Your task to perform on an android device: toggle notifications settings in the gmail app Image 0: 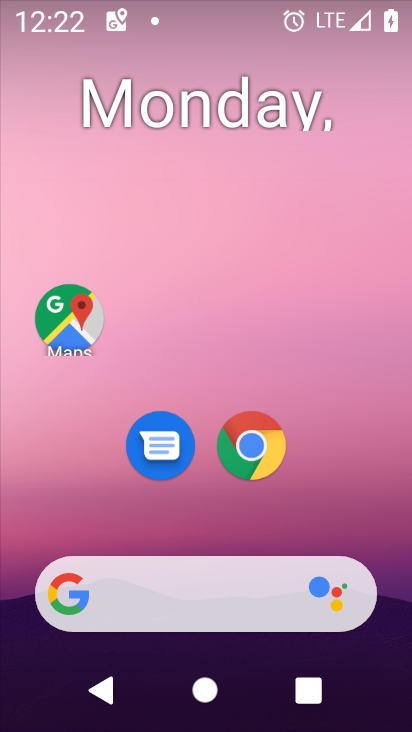
Step 0: drag from (199, 536) to (190, 156)
Your task to perform on an android device: toggle notifications settings in the gmail app Image 1: 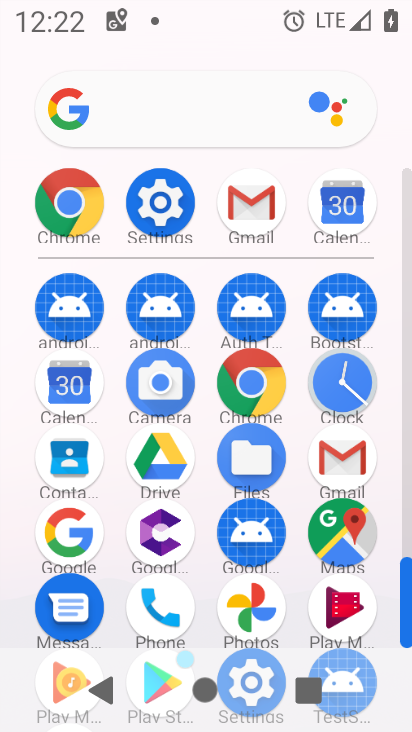
Step 1: click (344, 459)
Your task to perform on an android device: toggle notifications settings in the gmail app Image 2: 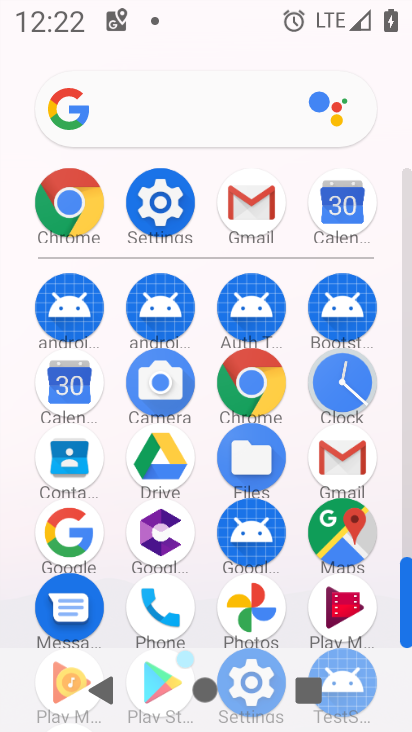
Step 2: click (344, 459)
Your task to perform on an android device: toggle notifications settings in the gmail app Image 3: 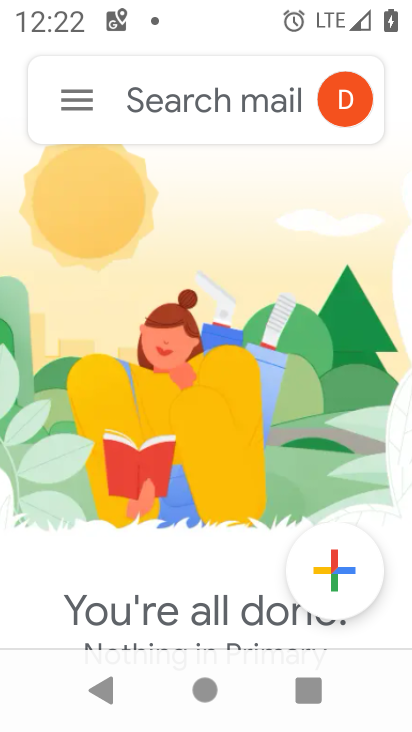
Step 3: click (78, 87)
Your task to perform on an android device: toggle notifications settings in the gmail app Image 4: 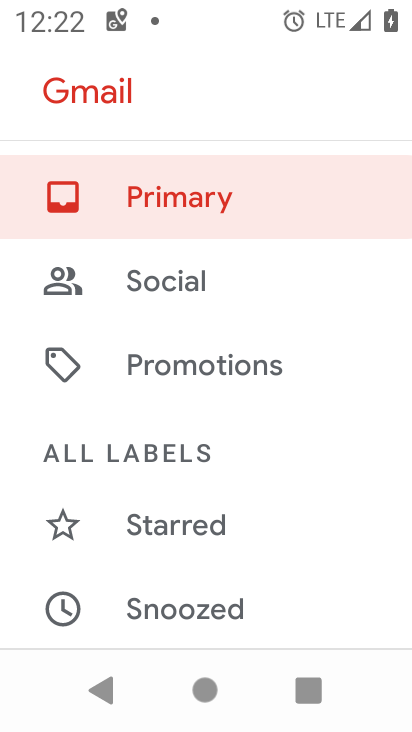
Step 4: drag from (216, 604) to (239, 95)
Your task to perform on an android device: toggle notifications settings in the gmail app Image 5: 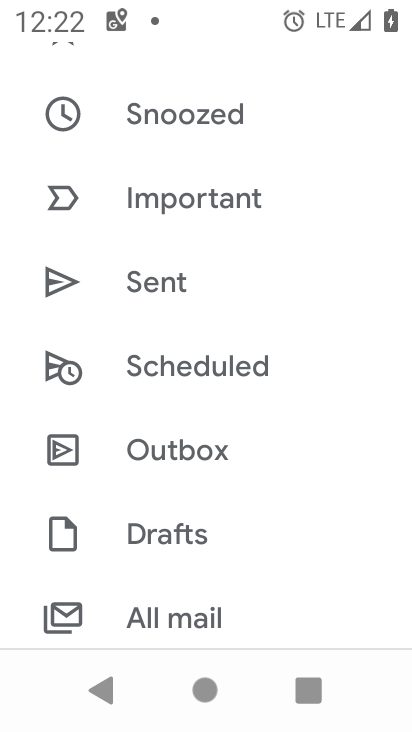
Step 5: drag from (176, 543) to (203, 163)
Your task to perform on an android device: toggle notifications settings in the gmail app Image 6: 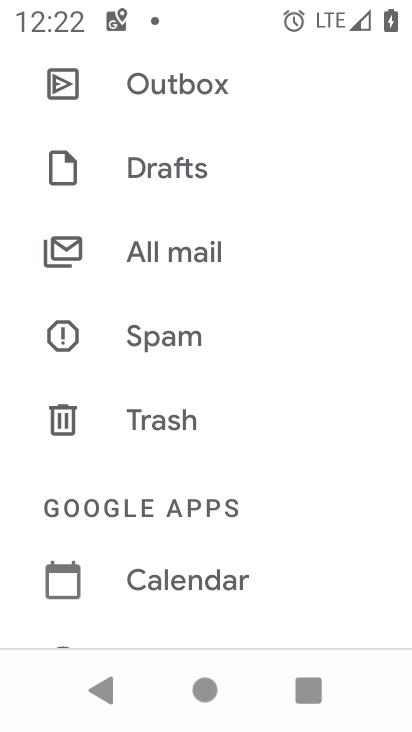
Step 6: drag from (215, 419) to (259, 5)
Your task to perform on an android device: toggle notifications settings in the gmail app Image 7: 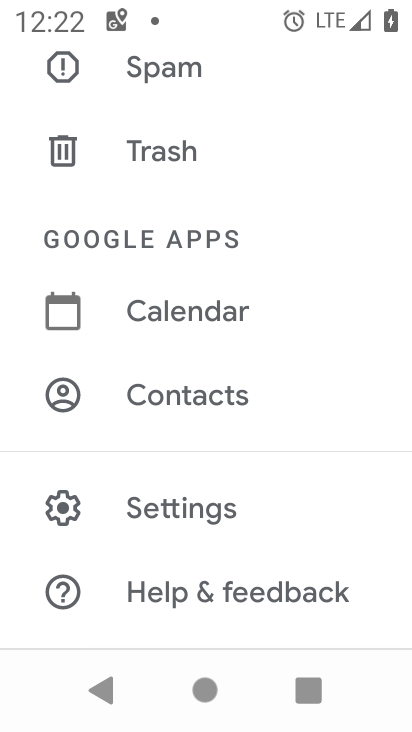
Step 7: click (204, 501)
Your task to perform on an android device: toggle notifications settings in the gmail app Image 8: 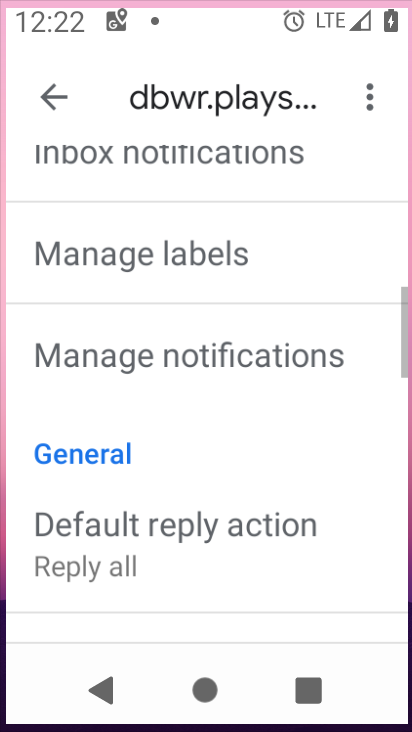
Step 8: drag from (204, 487) to (217, 132)
Your task to perform on an android device: toggle notifications settings in the gmail app Image 9: 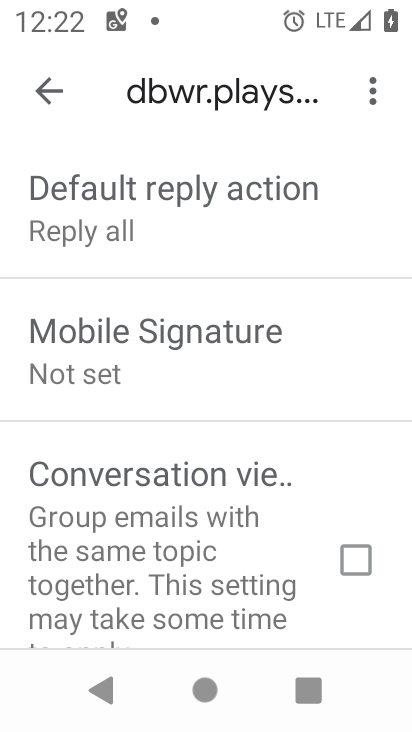
Step 9: drag from (194, 533) to (202, 212)
Your task to perform on an android device: toggle notifications settings in the gmail app Image 10: 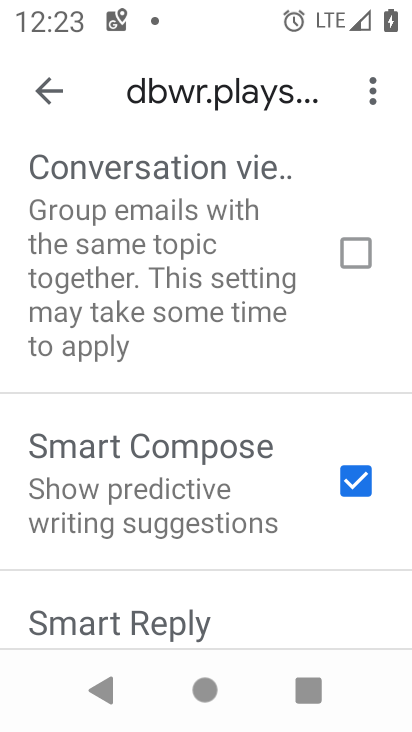
Step 10: drag from (164, 609) to (224, 72)
Your task to perform on an android device: toggle notifications settings in the gmail app Image 11: 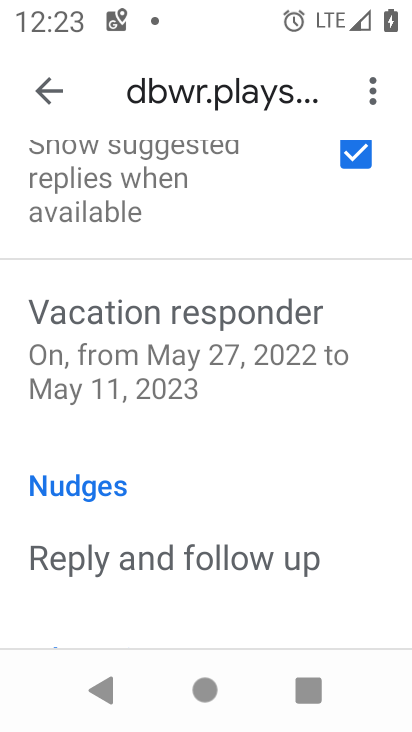
Step 11: drag from (185, 485) to (202, 154)
Your task to perform on an android device: toggle notifications settings in the gmail app Image 12: 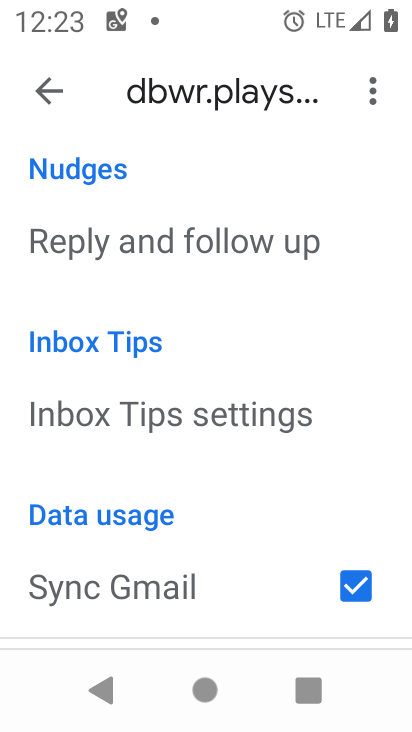
Step 12: drag from (192, 262) to (224, 639)
Your task to perform on an android device: toggle notifications settings in the gmail app Image 13: 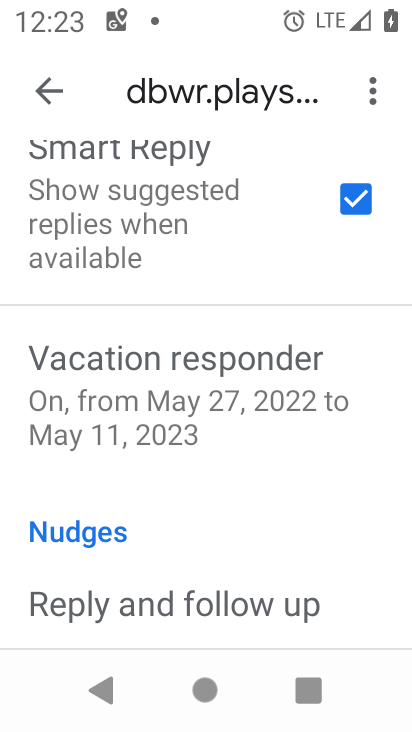
Step 13: drag from (210, 209) to (409, 421)
Your task to perform on an android device: toggle notifications settings in the gmail app Image 14: 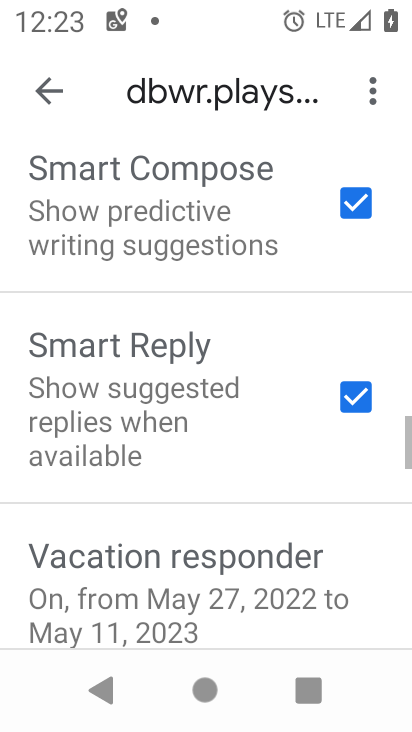
Step 14: drag from (232, 295) to (328, 722)
Your task to perform on an android device: toggle notifications settings in the gmail app Image 15: 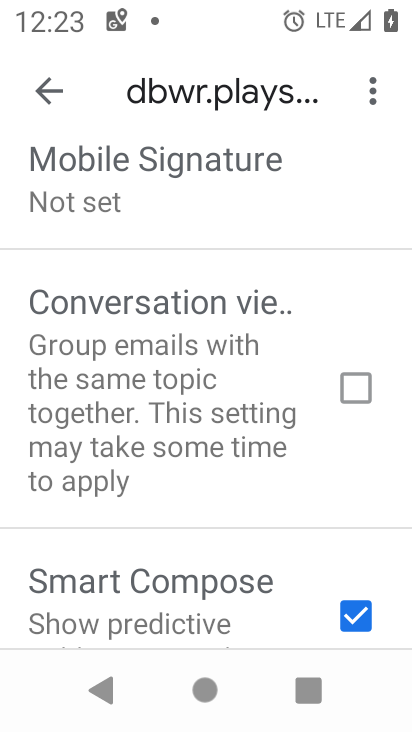
Step 15: drag from (193, 249) to (261, 711)
Your task to perform on an android device: toggle notifications settings in the gmail app Image 16: 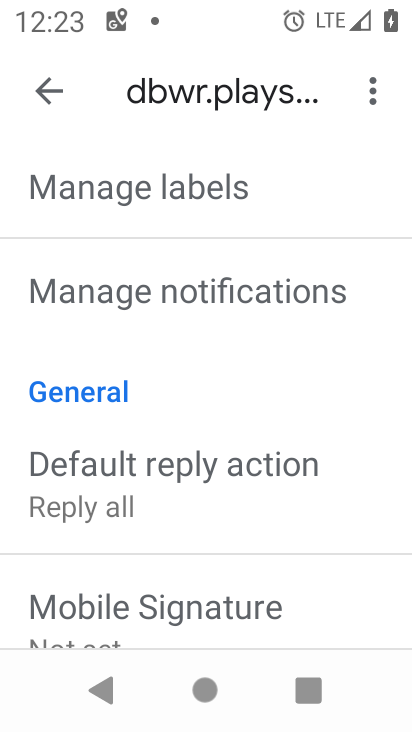
Step 16: click (174, 289)
Your task to perform on an android device: toggle notifications settings in the gmail app Image 17: 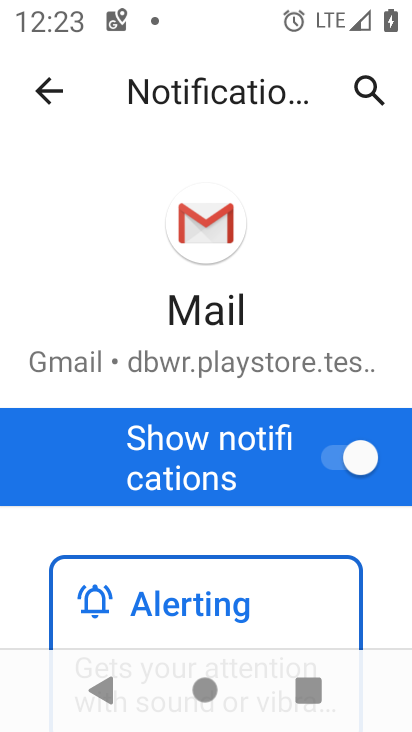
Step 17: drag from (266, 519) to (303, 234)
Your task to perform on an android device: toggle notifications settings in the gmail app Image 18: 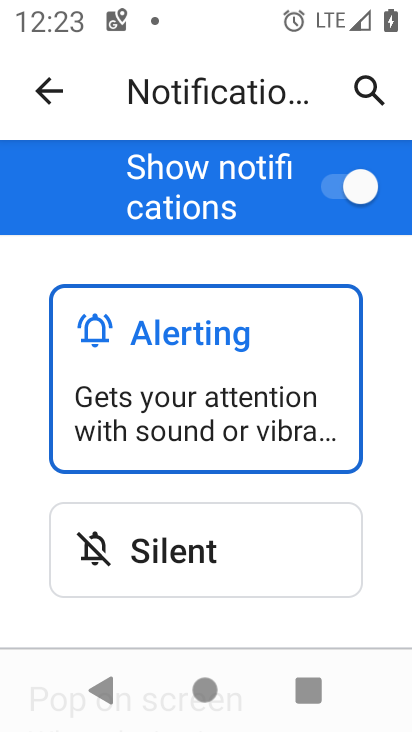
Step 18: click (351, 188)
Your task to perform on an android device: toggle notifications settings in the gmail app Image 19: 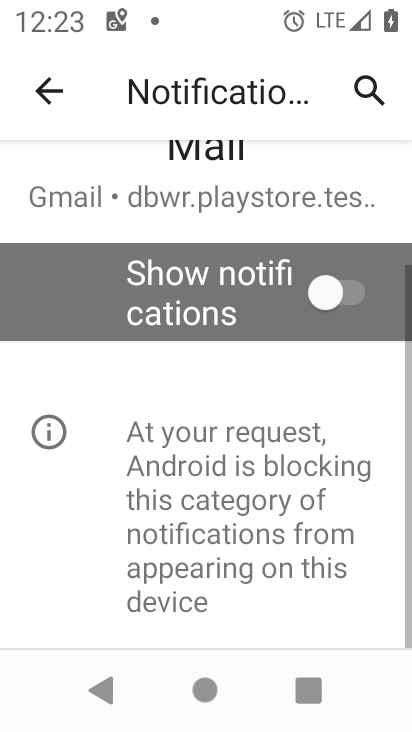
Step 19: task complete